Your task to perform on an android device: What is the news today? Image 0: 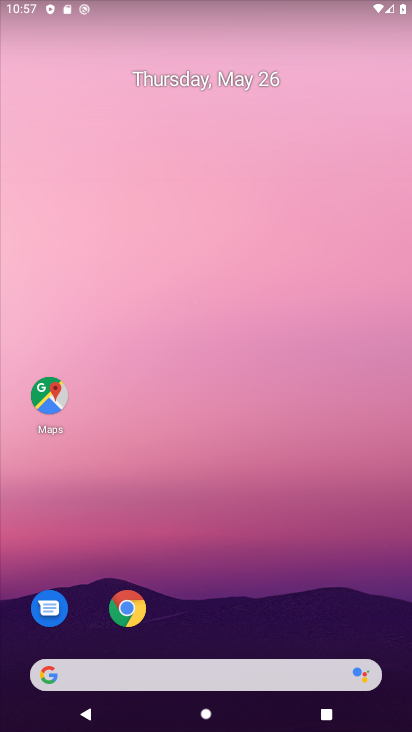
Step 0: drag from (290, 562) to (318, 0)
Your task to perform on an android device: What is the news today? Image 1: 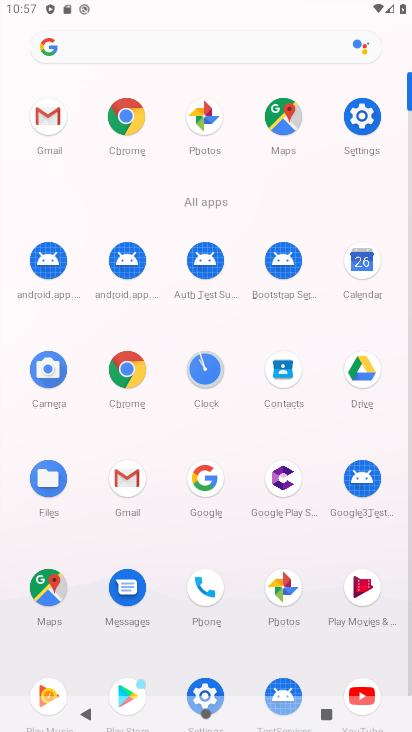
Step 1: click (126, 367)
Your task to perform on an android device: What is the news today? Image 2: 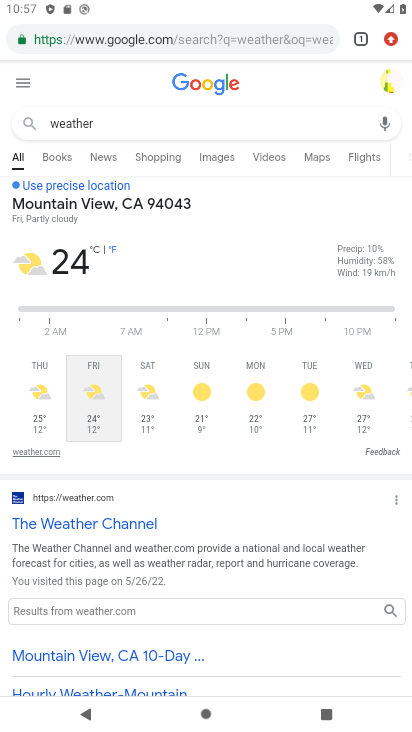
Step 2: click (202, 120)
Your task to perform on an android device: What is the news today? Image 3: 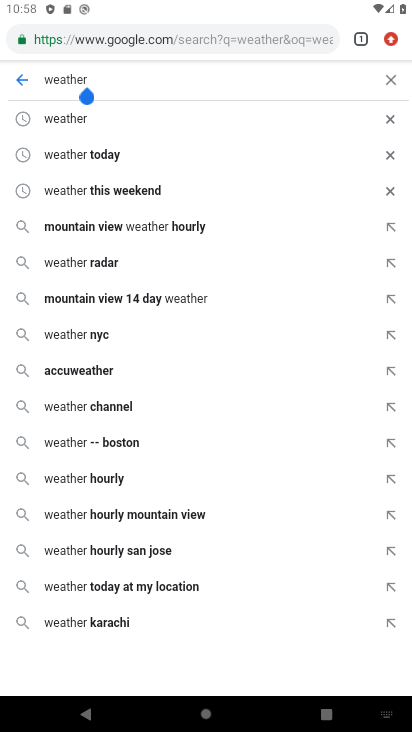
Step 3: click (394, 90)
Your task to perform on an android device: What is the news today? Image 4: 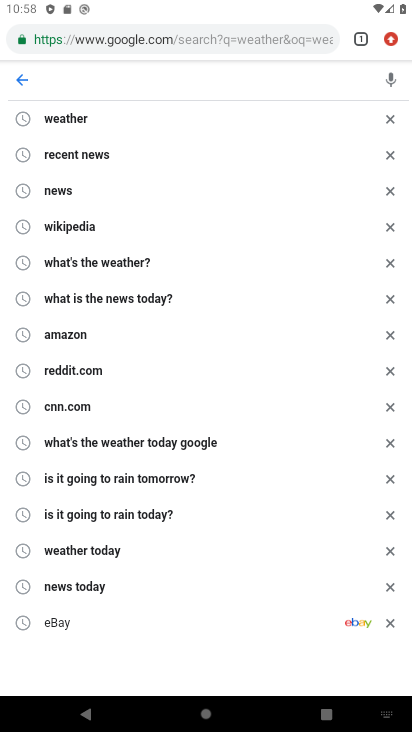
Step 4: type "news"
Your task to perform on an android device: What is the news today? Image 5: 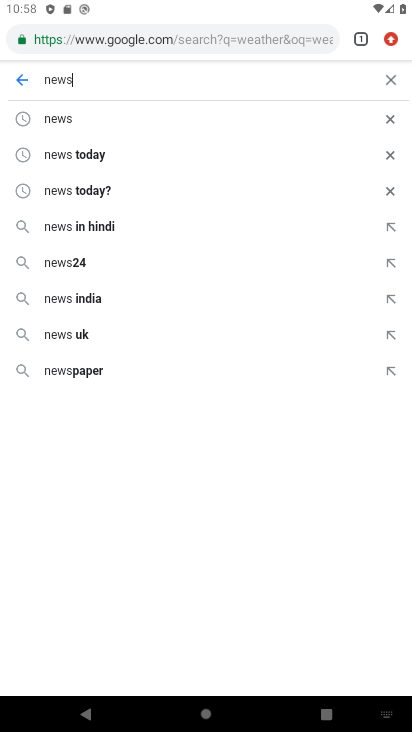
Step 5: click (80, 114)
Your task to perform on an android device: What is the news today? Image 6: 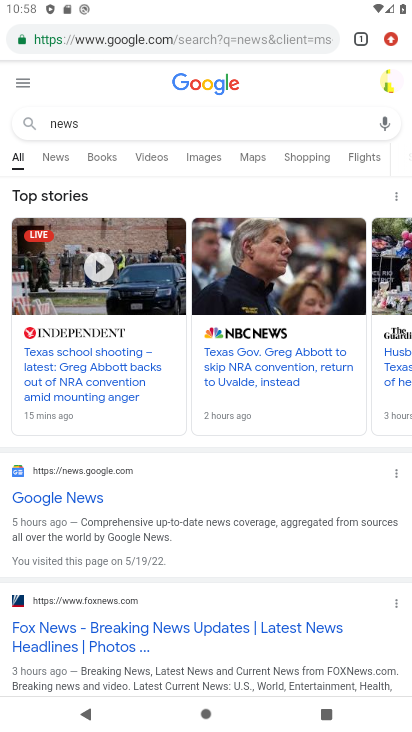
Step 6: click (59, 145)
Your task to perform on an android device: What is the news today? Image 7: 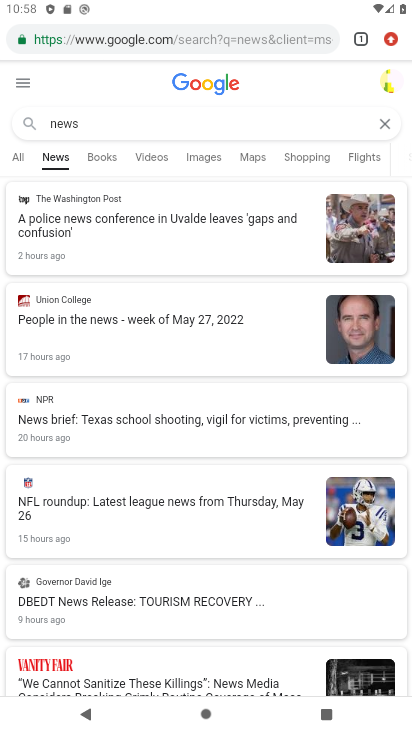
Step 7: task complete